Your task to perform on an android device: check battery use Image 0: 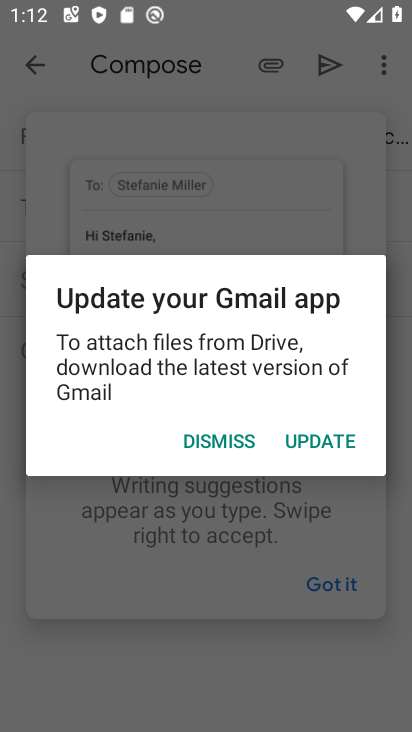
Step 0: press home button
Your task to perform on an android device: check battery use Image 1: 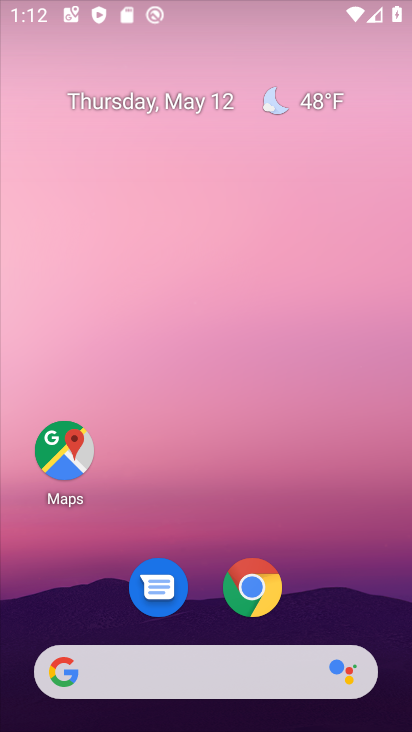
Step 1: drag from (207, 656) to (93, 4)
Your task to perform on an android device: check battery use Image 2: 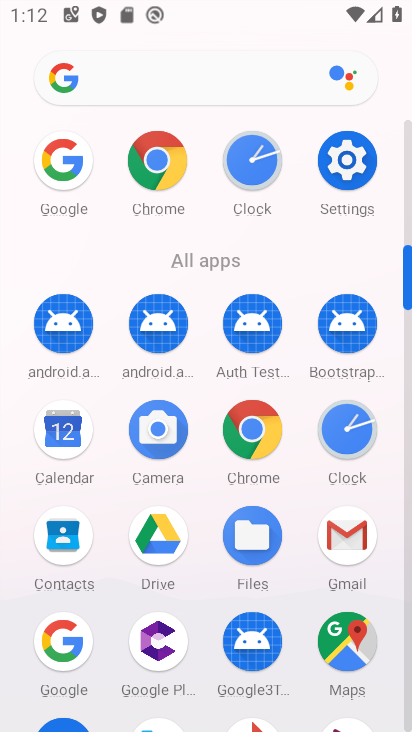
Step 2: click (374, 174)
Your task to perform on an android device: check battery use Image 3: 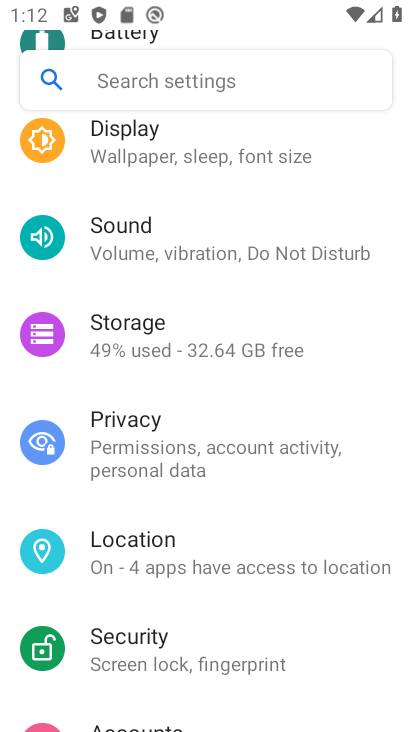
Step 3: drag from (190, 323) to (227, 498)
Your task to perform on an android device: check battery use Image 4: 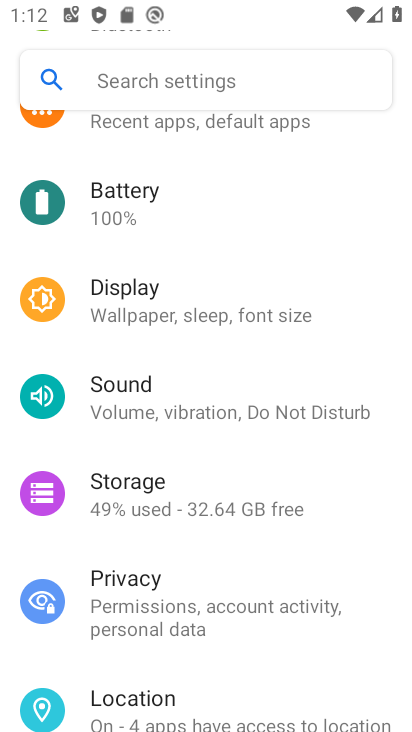
Step 4: click (234, 218)
Your task to perform on an android device: check battery use Image 5: 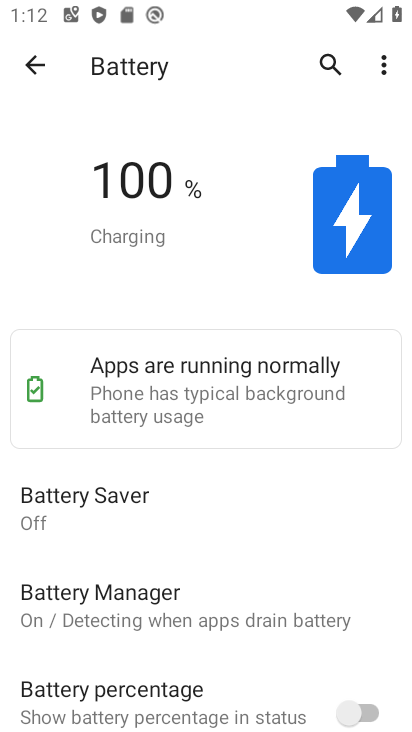
Step 5: task complete